Your task to perform on an android device: Search for vegetarian restaurants on Maps Image 0: 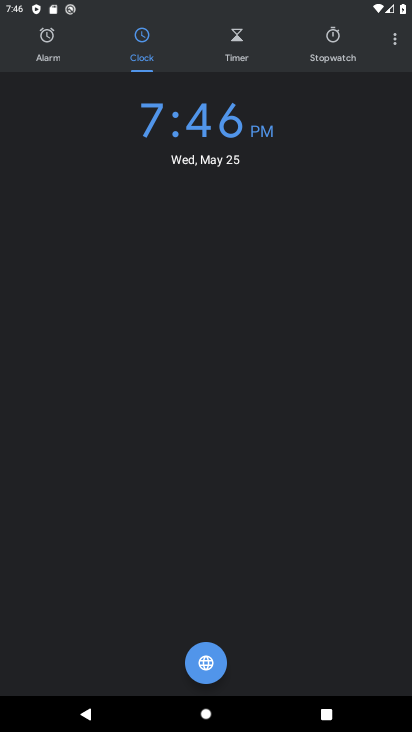
Step 0: press back button
Your task to perform on an android device: Search for vegetarian restaurants on Maps Image 1: 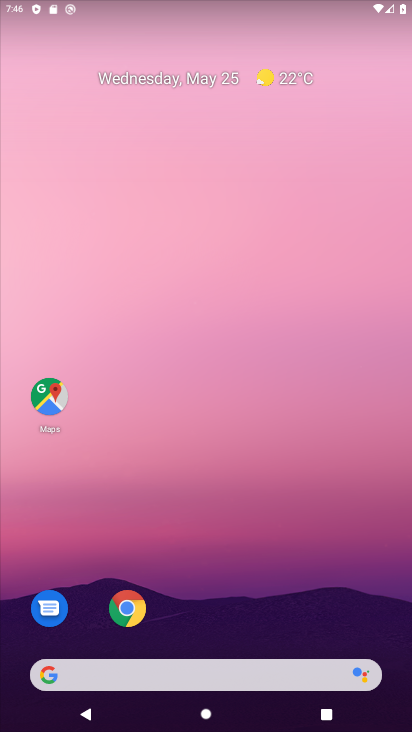
Step 1: click (50, 399)
Your task to perform on an android device: Search for vegetarian restaurants on Maps Image 2: 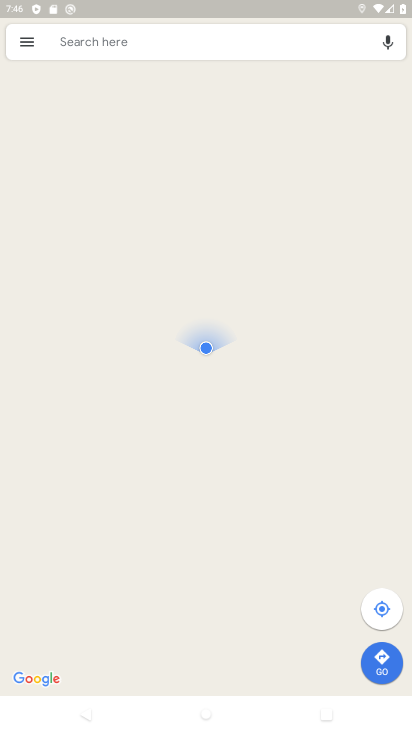
Step 2: click (185, 46)
Your task to perform on an android device: Search for vegetarian restaurants on Maps Image 3: 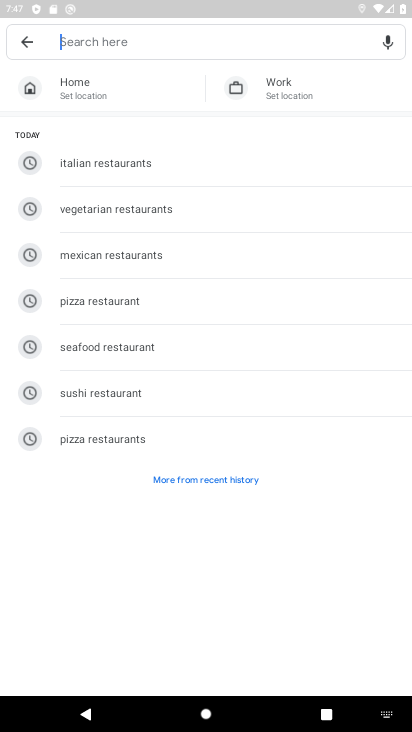
Step 3: type "vegetarian restaurants"
Your task to perform on an android device: Search for vegetarian restaurants on Maps Image 4: 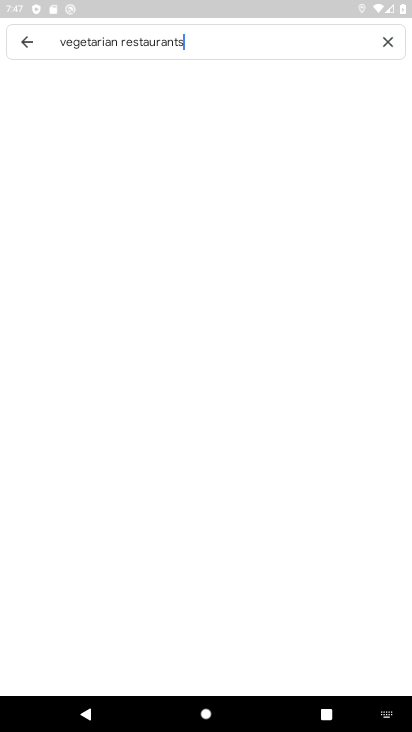
Step 4: type ""
Your task to perform on an android device: Search for vegetarian restaurants on Maps Image 5: 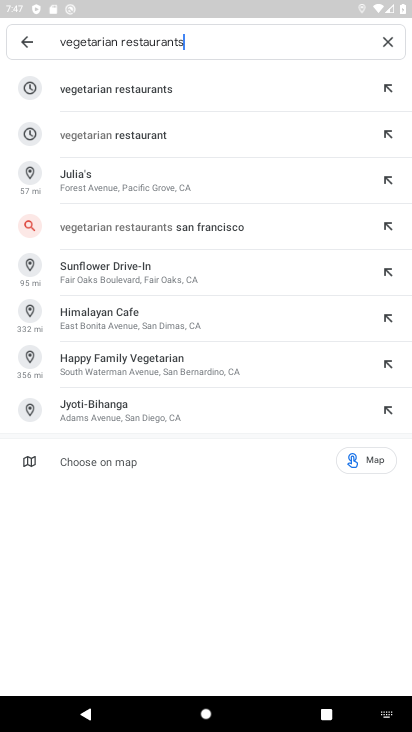
Step 5: click (81, 95)
Your task to perform on an android device: Search for vegetarian restaurants on Maps Image 6: 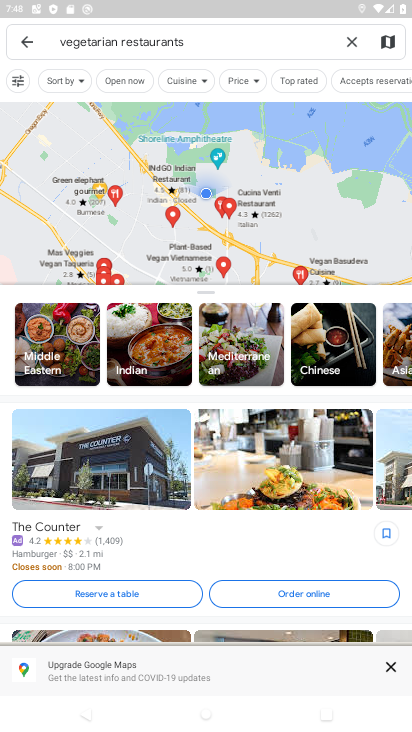
Step 6: task complete